Your task to perform on an android device: check the backup settings in the google photos Image 0: 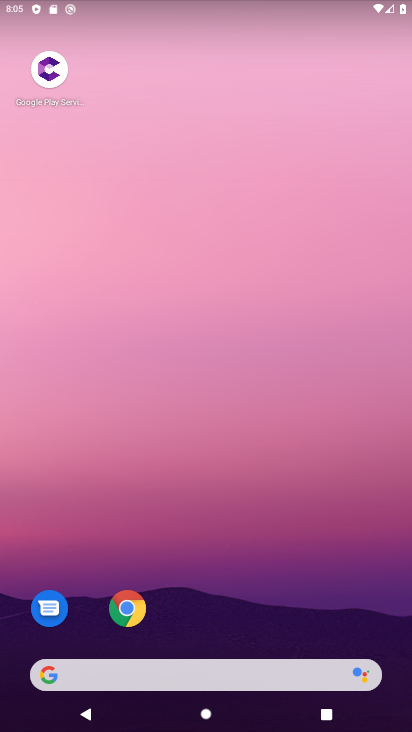
Step 0: drag from (245, 680) to (206, 195)
Your task to perform on an android device: check the backup settings in the google photos Image 1: 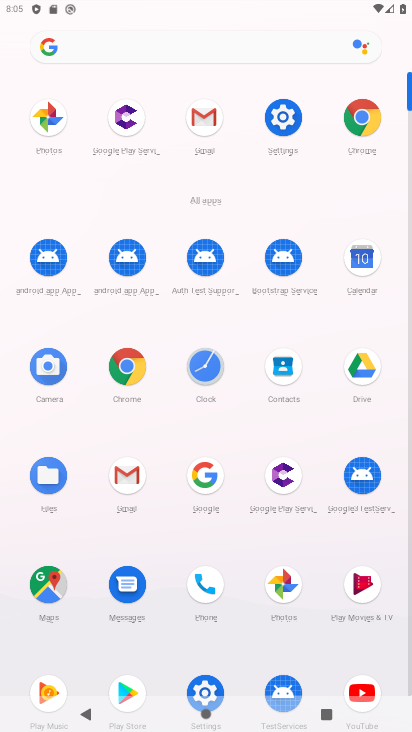
Step 1: click (290, 578)
Your task to perform on an android device: check the backup settings in the google photos Image 2: 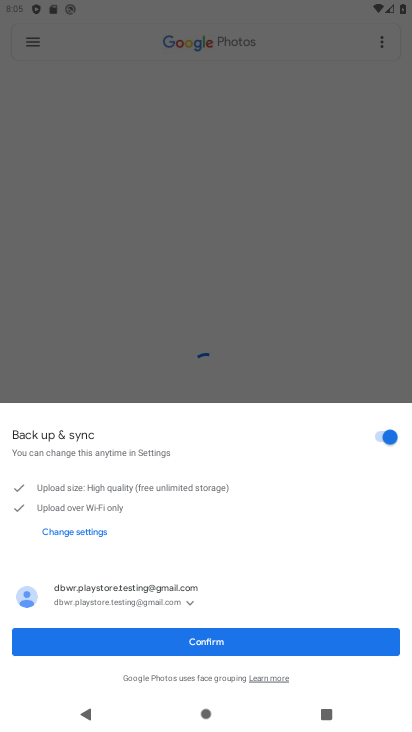
Step 2: click (267, 639)
Your task to perform on an android device: check the backup settings in the google photos Image 3: 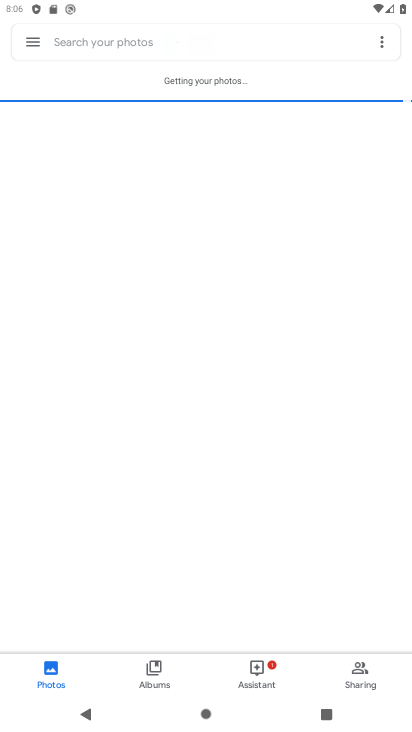
Step 3: click (38, 45)
Your task to perform on an android device: check the backup settings in the google photos Image 4: 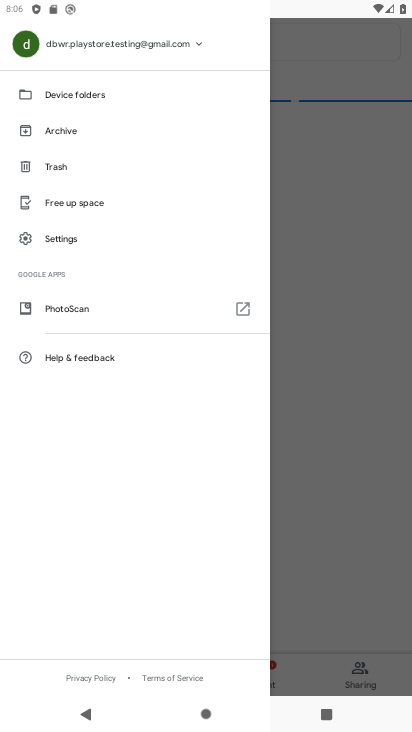
Step 4: click (58, 244)
Your task to perform on an android device: check the backup settings in the google photos Image 5: 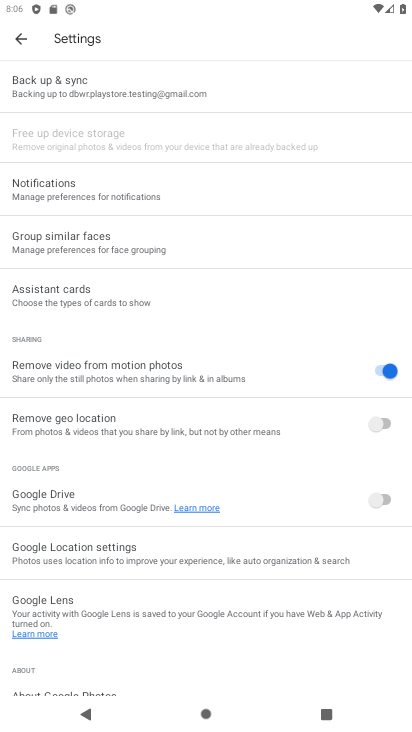
Step 5: click (110, 90)
Your task to perform on an android device: check the backup settings in the google photos Image 6: 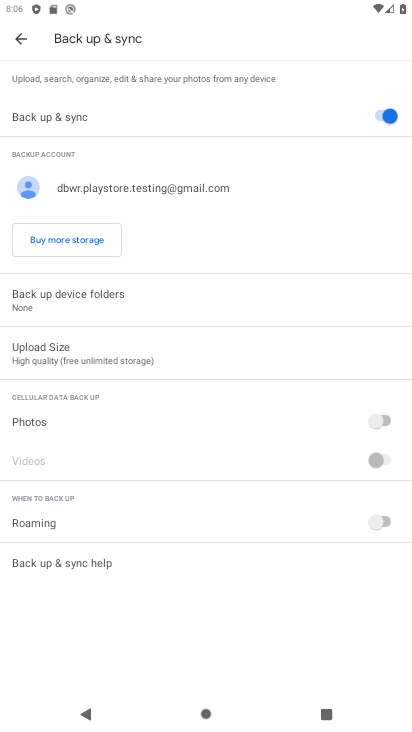
Step 6: task complete